Your task to perform on an android device: turn on data saver in the chrome app Image 0: 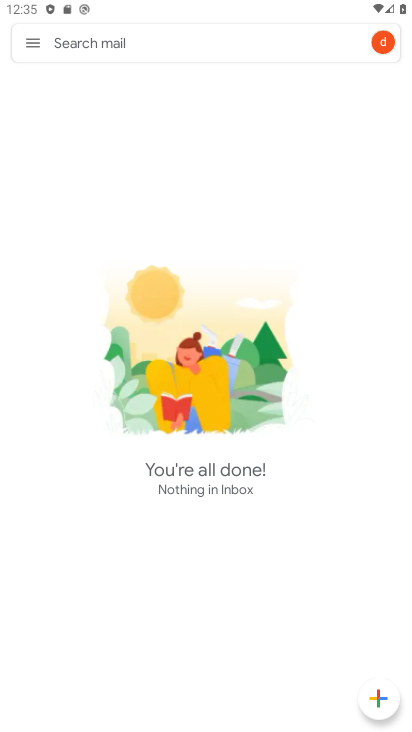
Step 0: press home button
Your task to perform on an android device: turn on data saver in the chrome app Image 1: 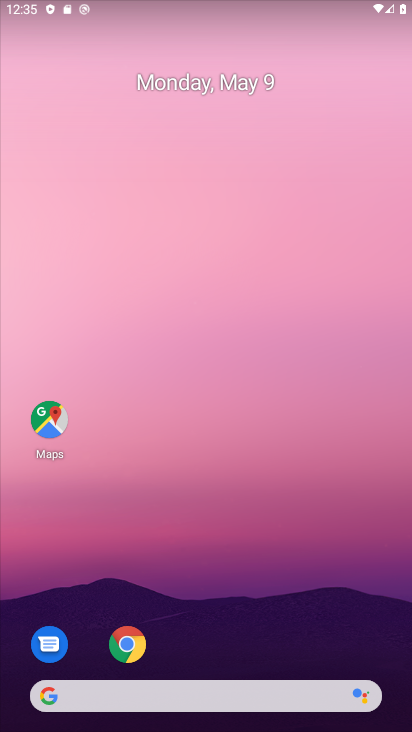
Step 1: drag from (234, 644) to (173, 151)
Your task to perform on an android device: turn on data saver in the chrome app Image 2: 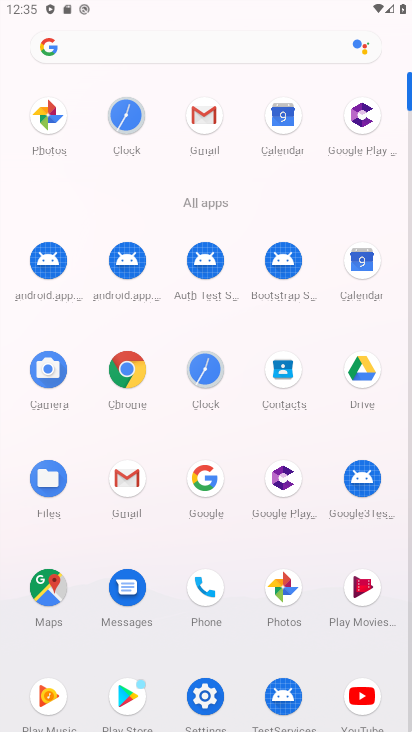
Step 2: click (128, 403)
Your task to perform on an android device: turn on data saver in the chrome app Image 3: 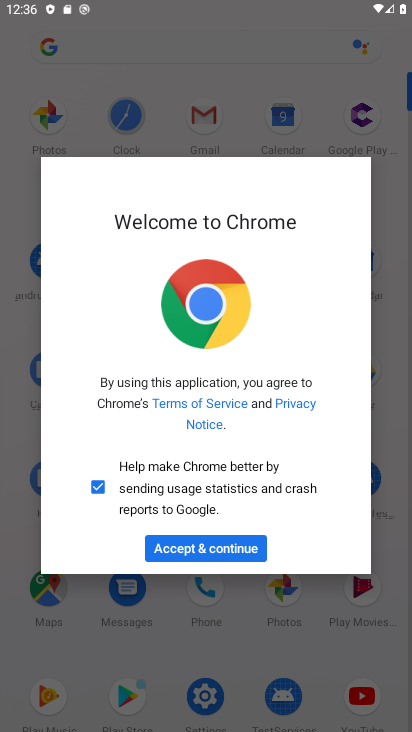
Step 3: click (207, 549)
Your task to perform on an android device: turn on data saver in the chrome app Image 4: 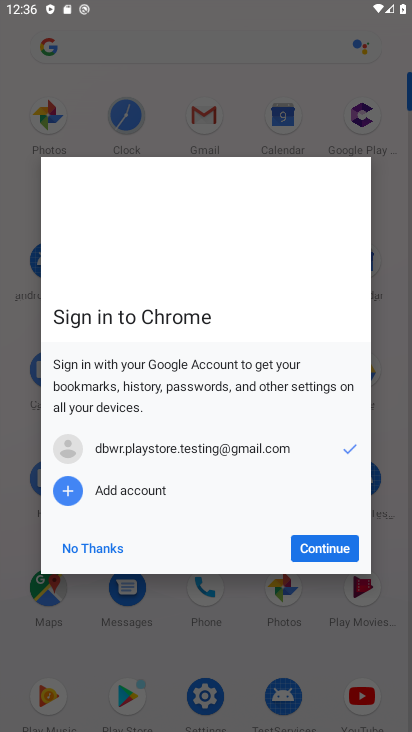
Step 4: click (291, 555)
Your task to perform on an android device: turn on data saver in the chrome app Image 5: 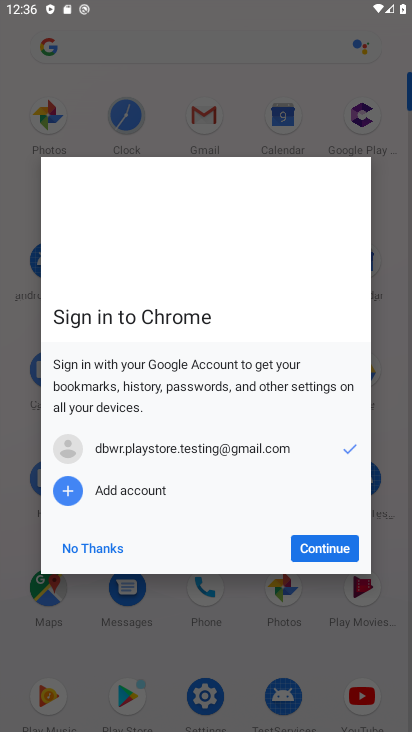
Step 5: click (326, 553)
Your task to perform on an android device: turn on data saver in the chrome app Image 6: 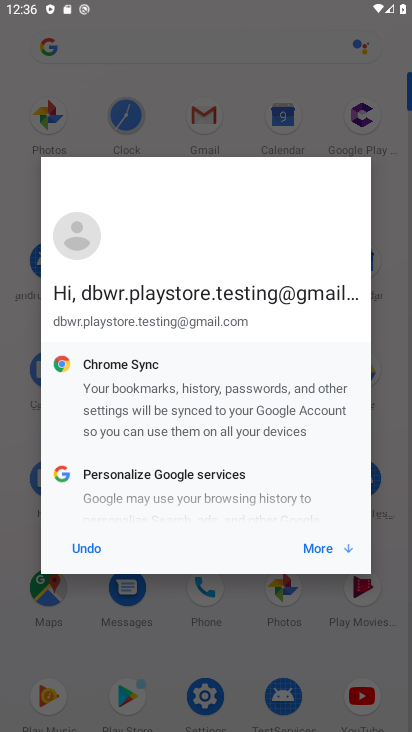
Step 6: click (324, 550)
Your task to perform on an android device: turn on data saver in the chrome app Image 7: 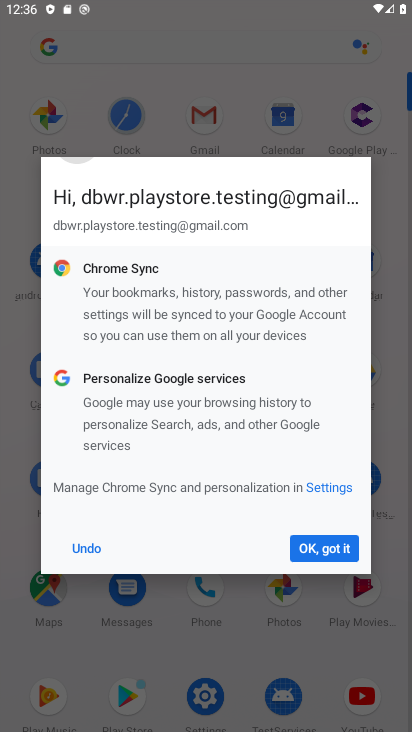
Step 7: click (324, 550)
Your task to perform on an android device: turn on data saver in the chrome app Image 8: 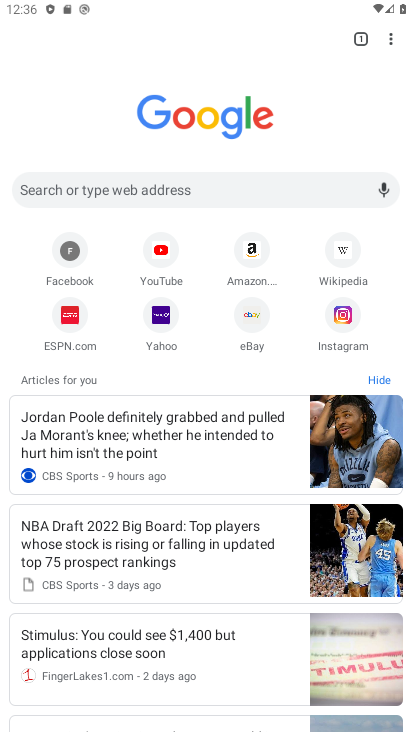
Step 8: click (386, 47)
Your task to perform on an android device: turn on data saver in the chrome app Image 9: 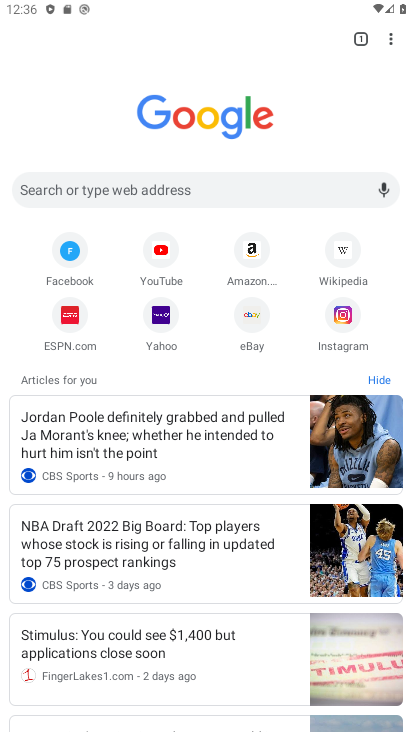
Step 9: click (392, 37)
Your task to perform on an android device: turn on data saver in the chrome app Image 10: 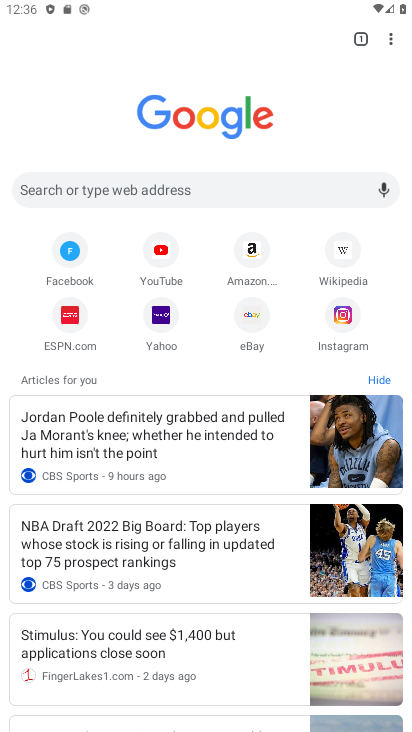
Step 10: click (390, 37)
Your task to perform on an android device: turn on data saver in the chrome app Image 11: 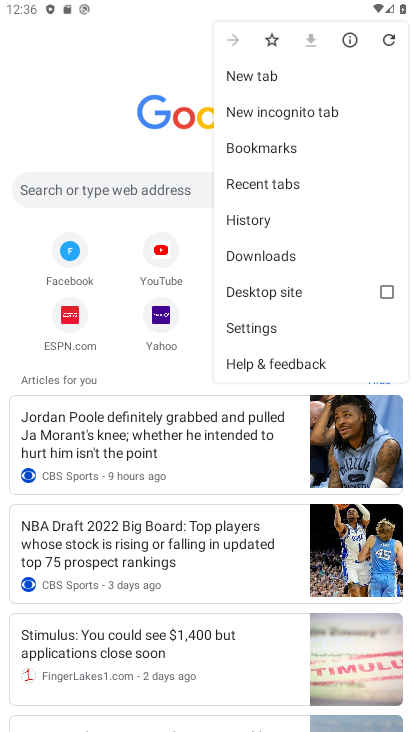
Step 11: click (267, 326)
Your task to perform on an android device: turn on data saver in the chrome app Image 12: 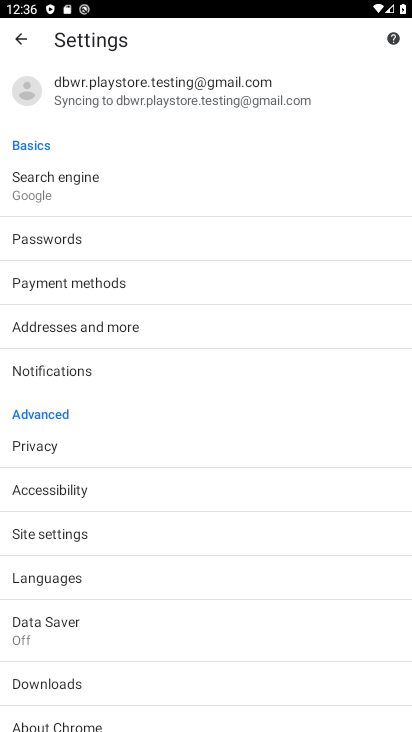
Step 12: click (39, 633)
Your task to perform on an android device: turn on data saver in the chrome app Image 13: 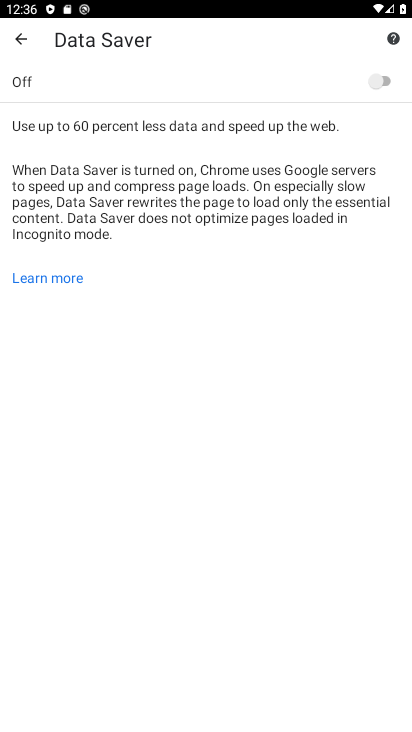
Step 13: click (389, 78)
Your task to perform on an android device: turn on data saver in the chrome app Image 14: 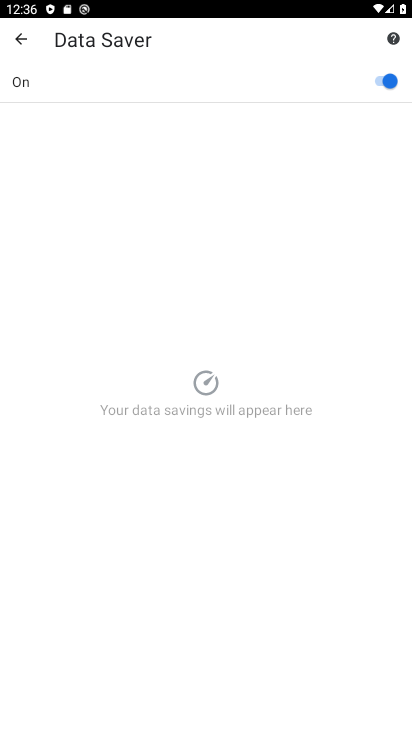
Step 14: task complete